Your task to perform on an android device: change the upload size in google photos Image 0: 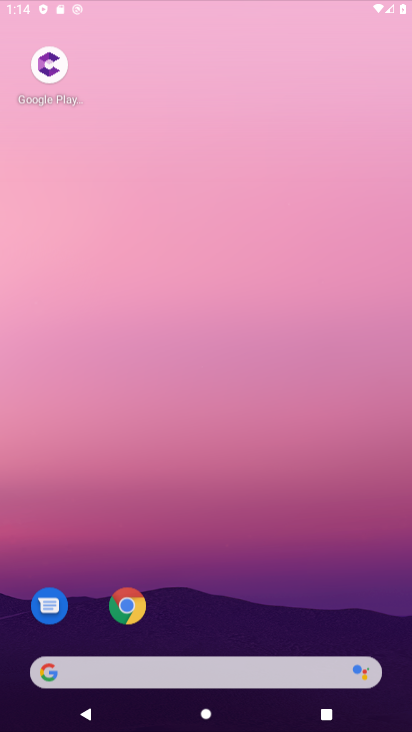
Step 0: drag from (238, 38) to (310, 96)
Your task to perform on an android device: change the upload size in google photos Image 1: 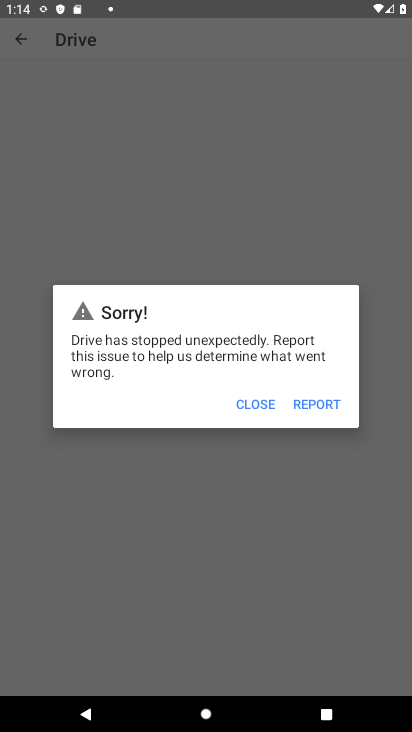
Step 1: press home button
Your task to perform on an android device: change the upload size in google photos Image 2: 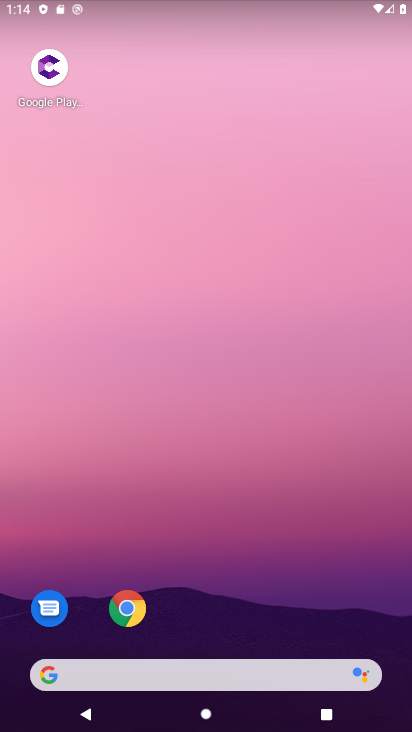
Step 2: drag from (247, 647) to (253, 87)
Your task to perform on an android device: change the upload size in google photos Image 3: 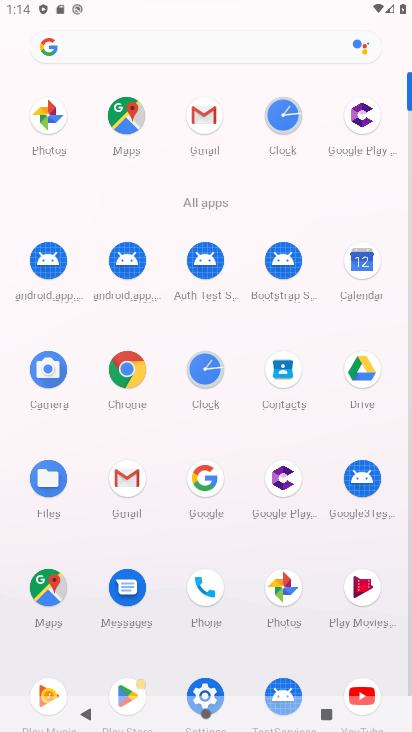
Step 3: click (285, 585)
Your task to perform on an android device: change the upload size in google photos Image 4: 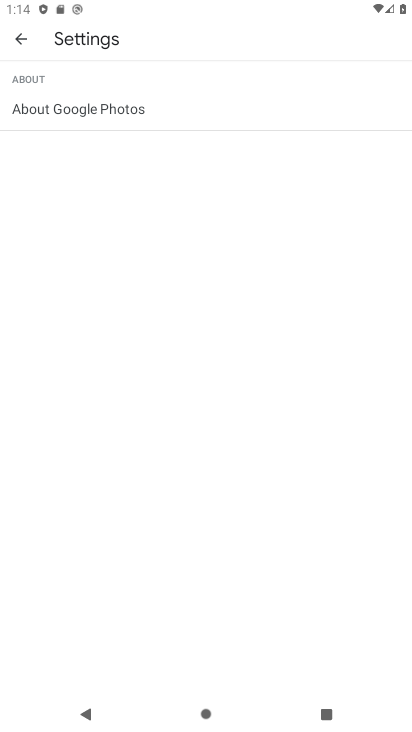
Step 4: click (20, 35)
Your task to perform on an android device: change the upload size in google photos Image 5: 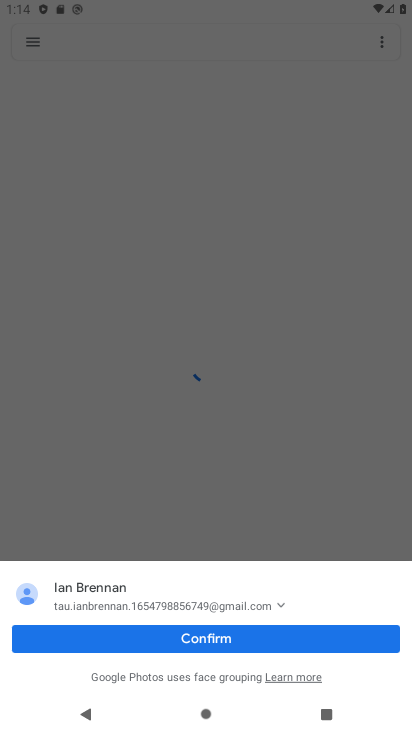
Step 5: click (37, 41)
Your task to perform on an android device: change the upload size in google photos Image 6: 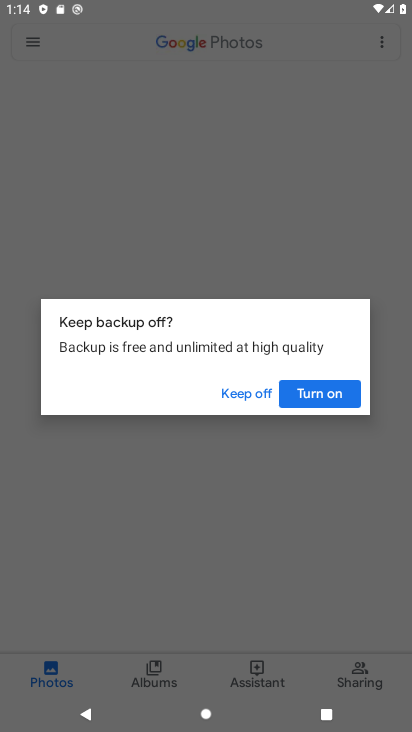
Step 6: click (252, 385)
Your task to perform on an android device: change the upload size in google photos Image 7: 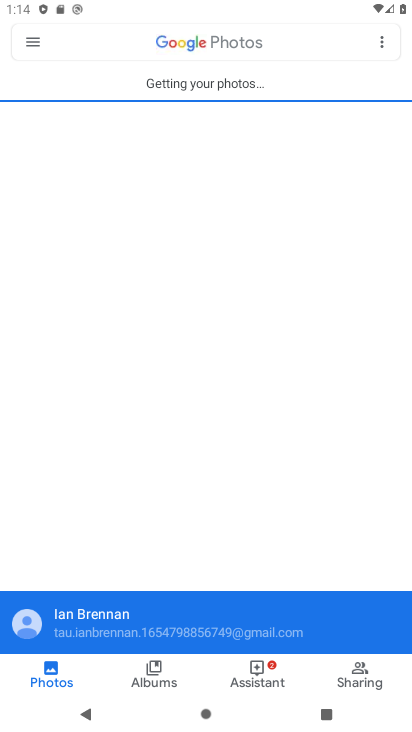
Step 7: click (34, 42)
Your task to perform on an android device: change the upload size in google photos Image 8: 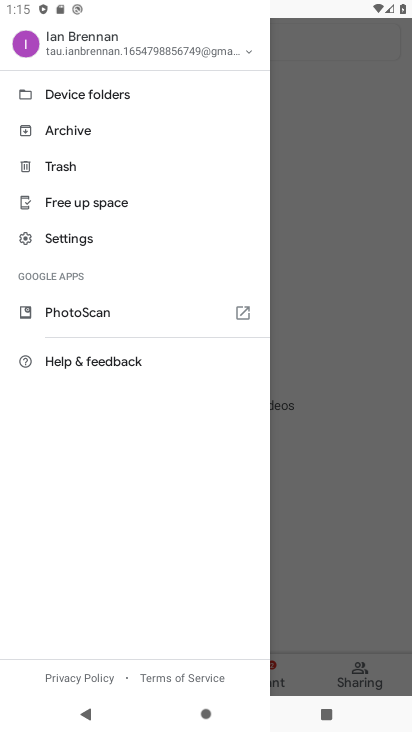
Step 8: click (80, 248)
Your task to perform on an android device: change the upload size in google photos Image 9: 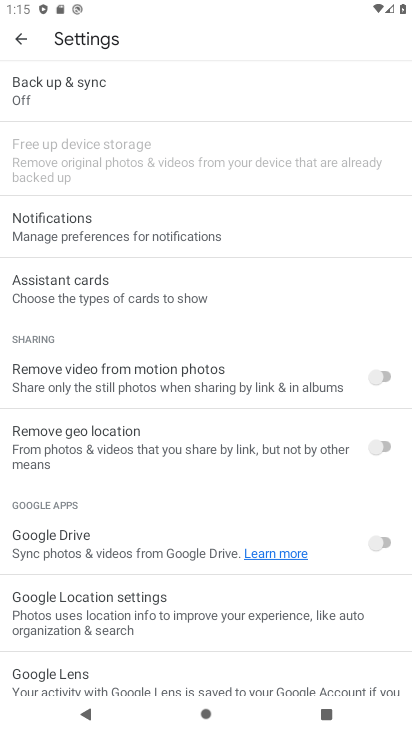
Step 9: click (65, 95)
Your task to perform on an android device: change the upload size in google photos Image 10: 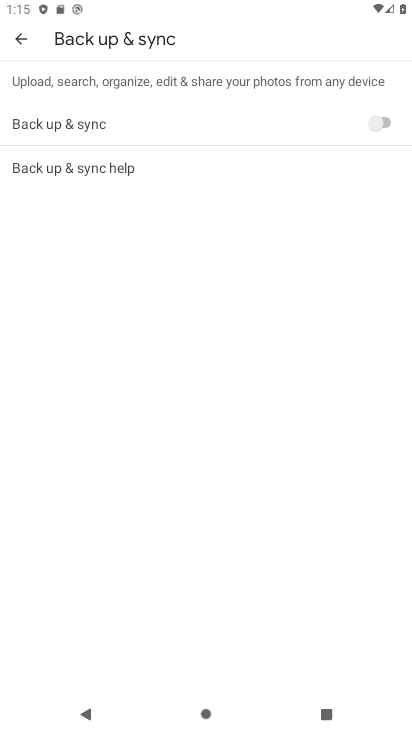
Step 10: click (174, 113)
Your task to perform on an android device: change the upload size in google photos Image 11: 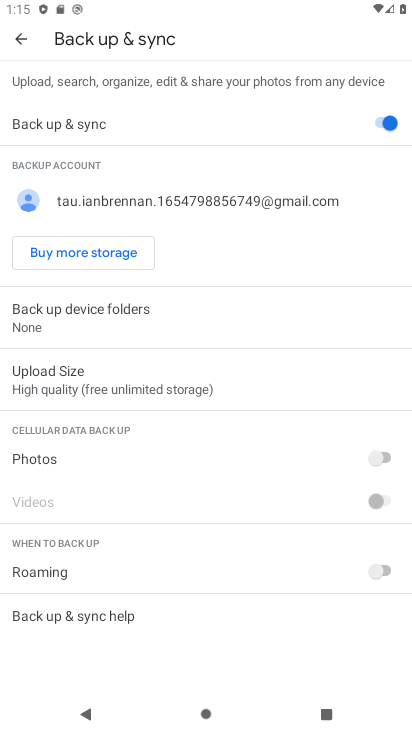
Step 11: click (115, 374)
Your task to perform on an android device: change the upload size in google photos Image 12: 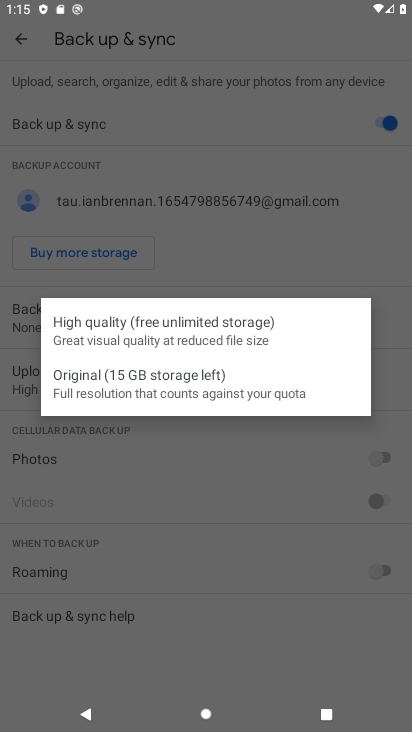
Step 12: click (116, 381)
Your task to perform on an android device: change the upload size in google photos Image 13: 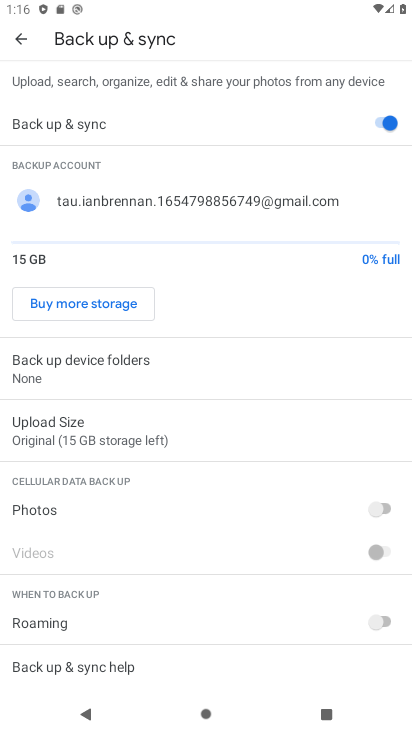
Step 13: task complete